Your task to perform on an android device: Open Google Maps and go to "Timeline" Image 0: 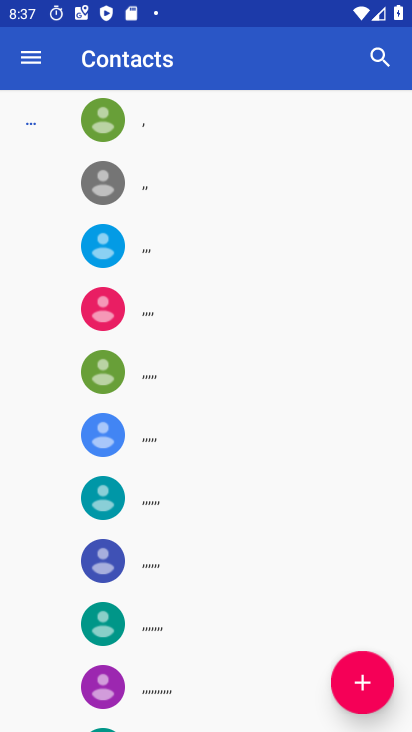
Step 0: press back button
Your task to perform on an android device: Open Google Maps and go to "Timeline" Image 1: 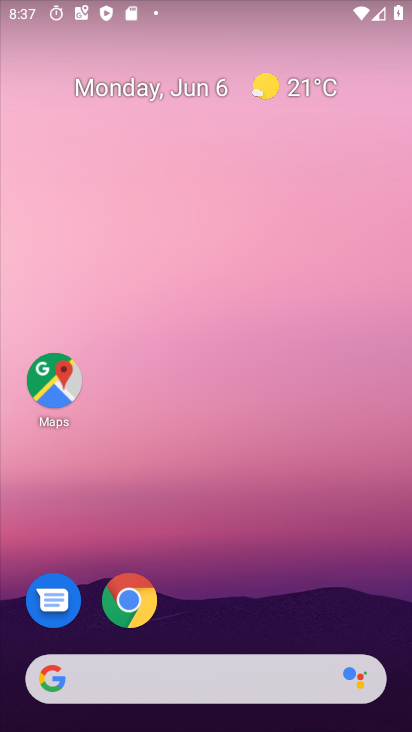
Step 1: drag from (312, 587) to (196, 13)
Your task to perform on an android device: Open Google Maps and go to "Timeline" Image 2: 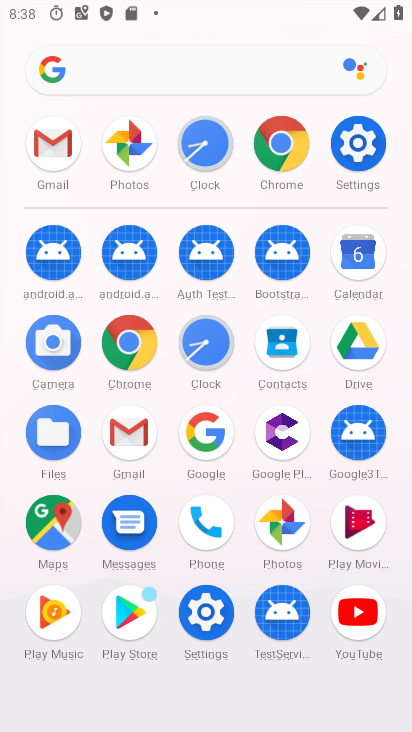
Step 2: drag from (23, 580) to (18, 284)
Your task to perform on an android device: Open Google Maps and go to "Timeline" Image 3: 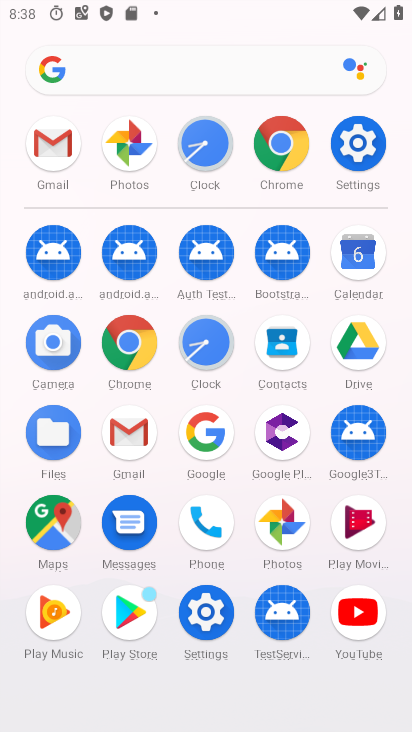
Step 3: click (53, 523)
Your task to perform on an android device: Open Google Maps and go to "Timeline" Image 4: 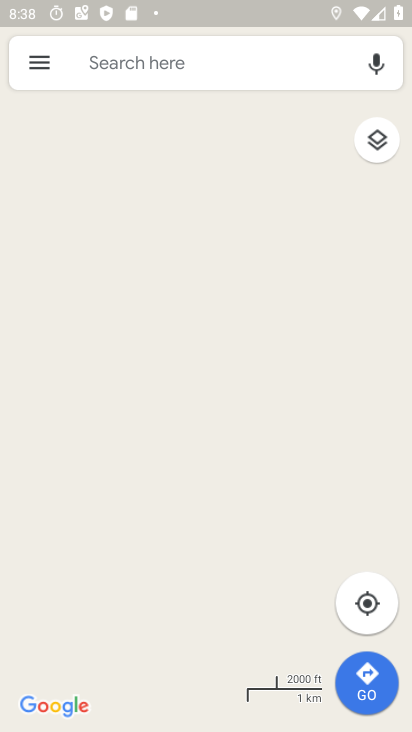
Step 4: click (40, 65)
Your task to perform on an android device: Open Google Maps and go to "Timeline" Image 5: 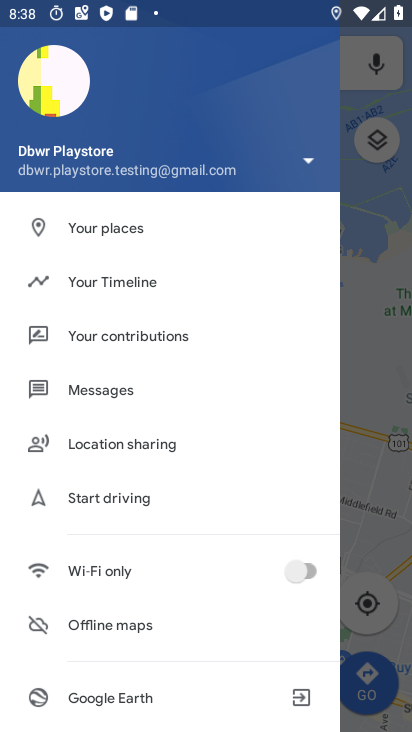
Step 5: click (110, 283)
Your task to perform on an android device: Open Google Maps and go to "Timeline" Image 6: 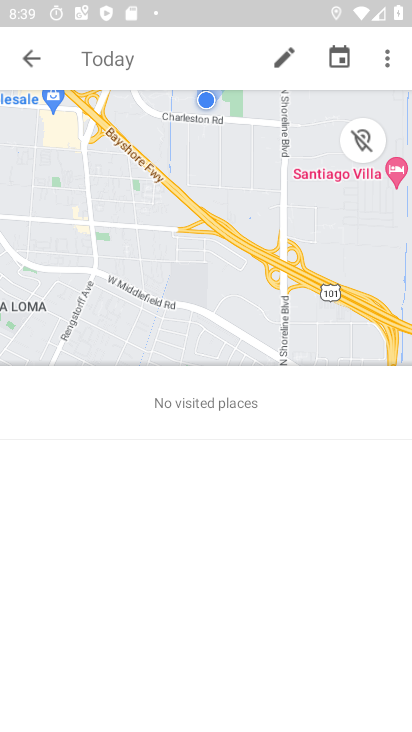
Step 6: task complete